Your task to perform on an android device: open a bookmark in the chrome app Image 0: 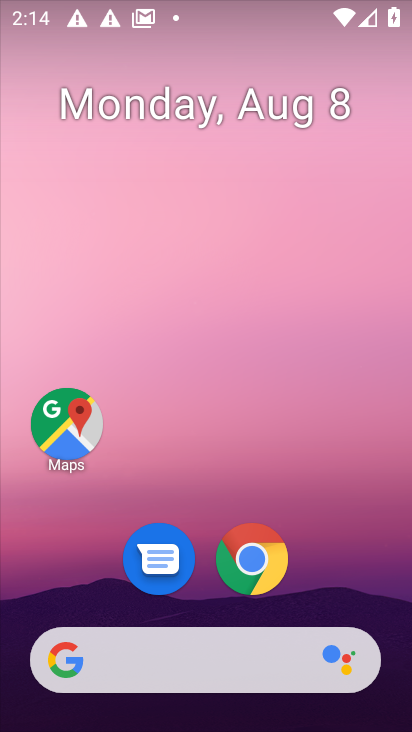
Step 0: click (252, 559)
Your task to perform on an android device: open a bookmark in the chrome app Image 1: 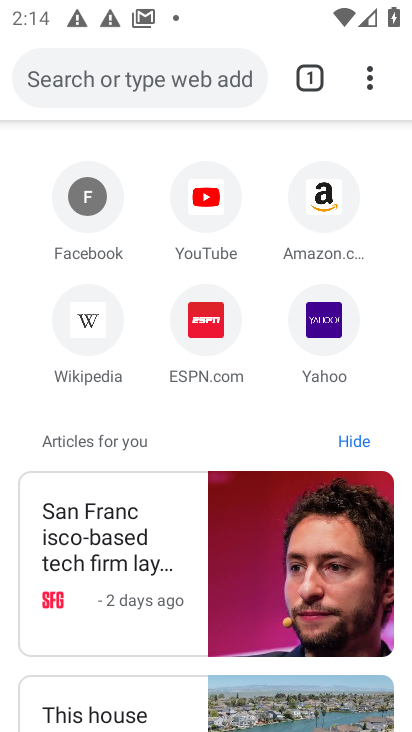
Step 1: click (369, 77)
Your task to perform on an android device: open a bookmark in the chrome app Image 2: 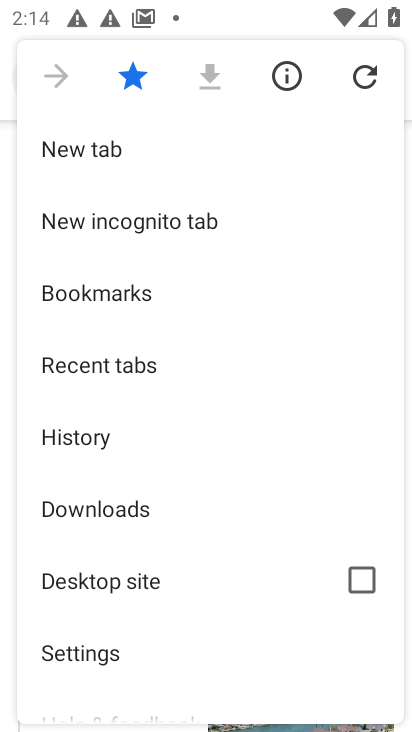
Step 2: click (126, 292)
Your task to perform on an android device: open a bookmark in the chrome app Image 3: 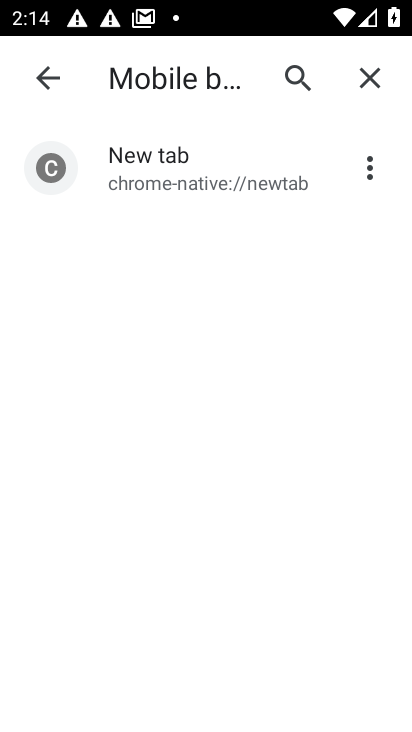
Step 3: task complete